Your task to perform on an android device: Search for apple airpods pro on target, select the first entry, and add it to the cart. Image 0: 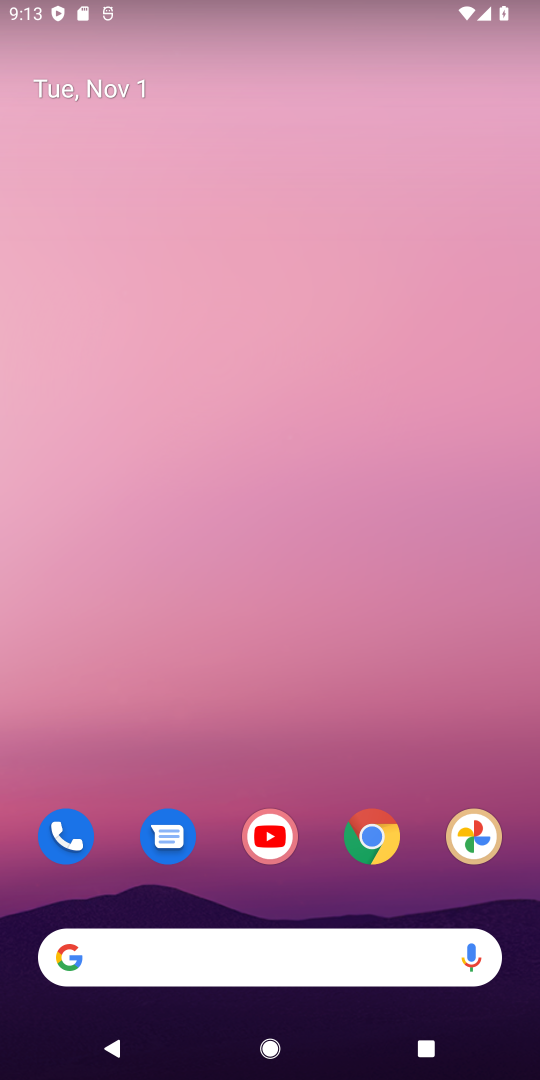
Step 0: click (375, 848)
Your task to perform on an android device: Search for apple airpods pro on target, select the first entry, and add it to the cart. Image 1: 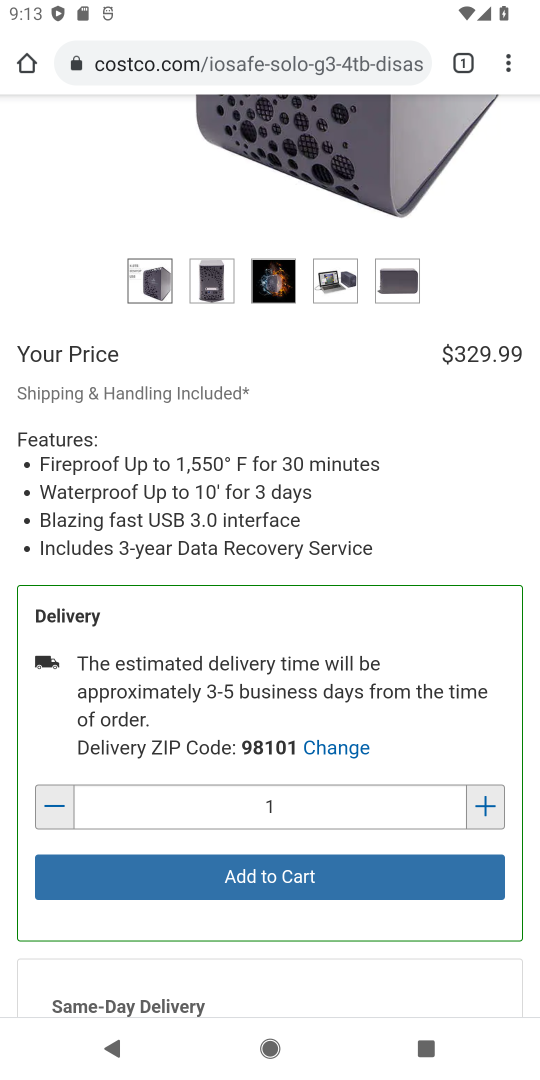
Step 1: click (185, 86)
Your task to perform on an android device: Search for apple airpods pro on target, select the first entry, and add it to the cart. Image 2: 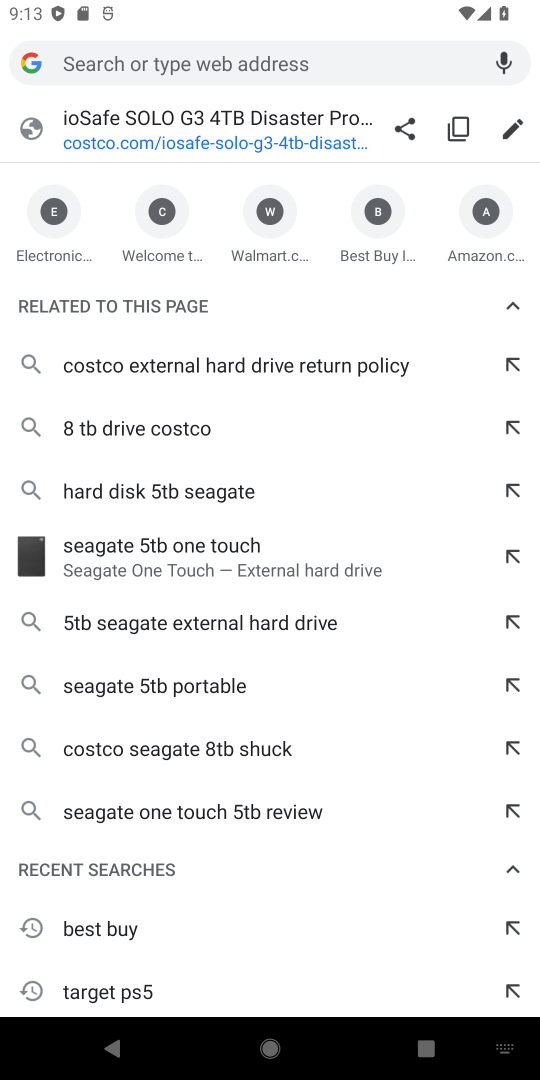
Step 2: type "target"
Your task to perform on an android device: Search for apple airpods pro on target, select the first entry, and add it to the cart. Image 3: 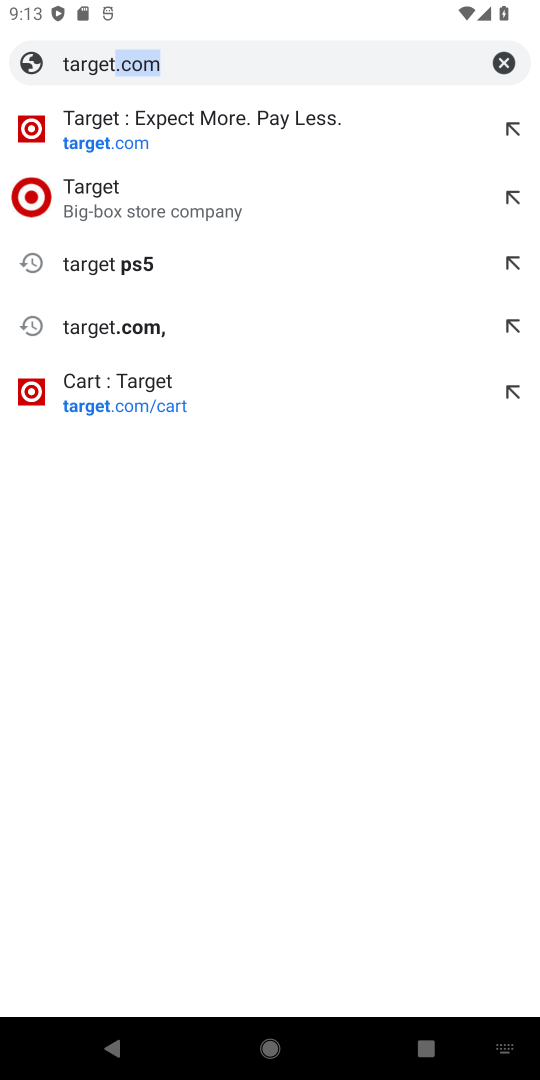
Step 3: click (223, 132)
Your task to perform on an android device: Search for apple airpods pro on target, select the first entry, and add it to the cart. Image 4: 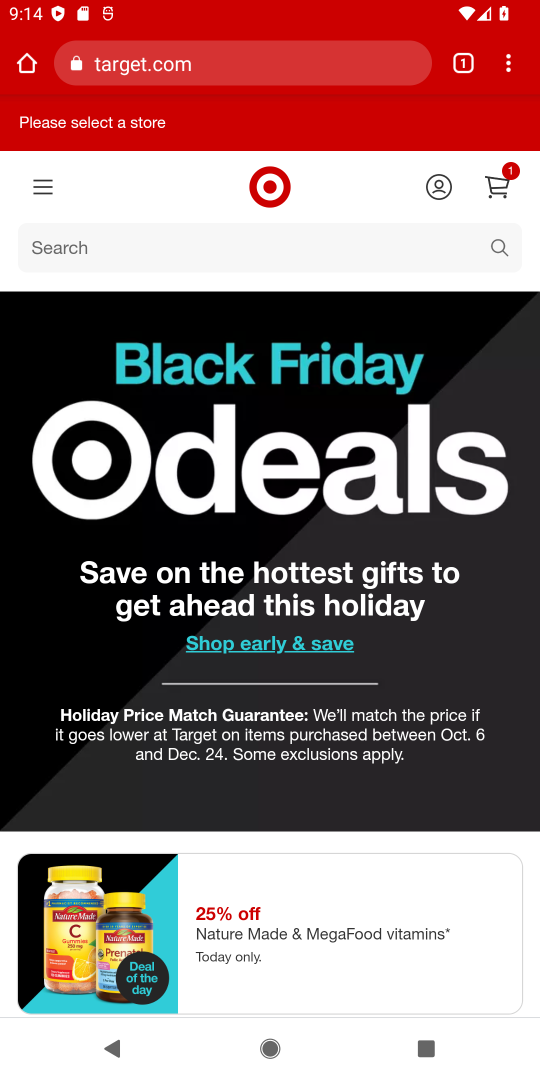
Step 4: click (204, 257)
Your task to perform on an android device: Search for apple airpods pro on target, select the first entry, and add it to the cart. Image 5: 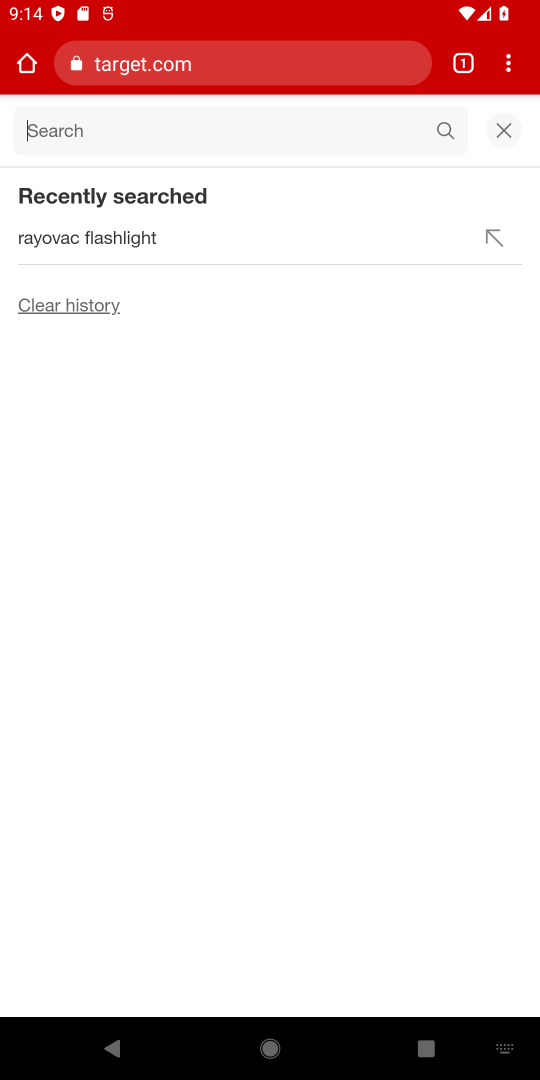
Step 5: type "apple airpods pro"
Your task to perform on an android device: Search for apple airpods pro on target, select the first entry, and add it to the cart. Image 6: 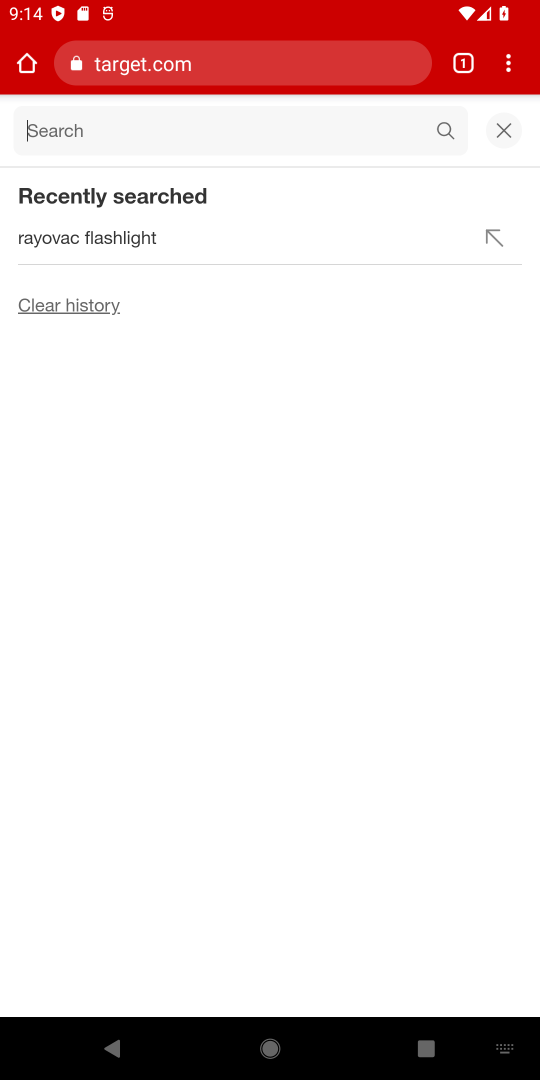
Step 6: type ""
Your task to perform on an android device: Search for apple airpods pro on target, select the first entry, and add it to the cart. Image 7: 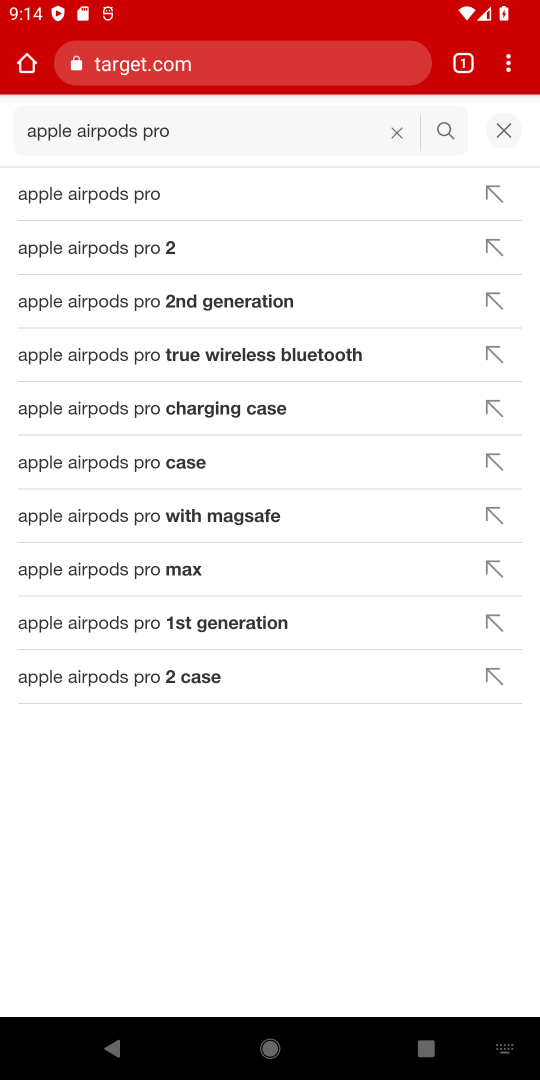
Step 7: click (98, 196)
Your task to perform on an android device: Search for apple airpods pro on target, select the first entry, and add it to the cart. Image 8: 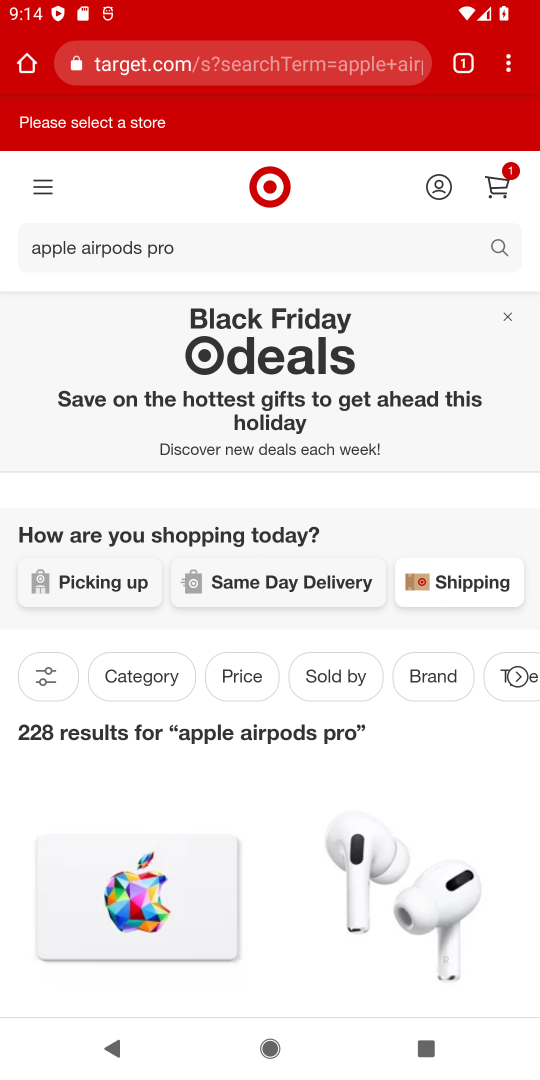
Step 8: drag from (251, 834) to (306, 454)
Your task to perform on an android device: Search for apple airpods pro on target, select the first entry, and add it to the cart. Image 9: 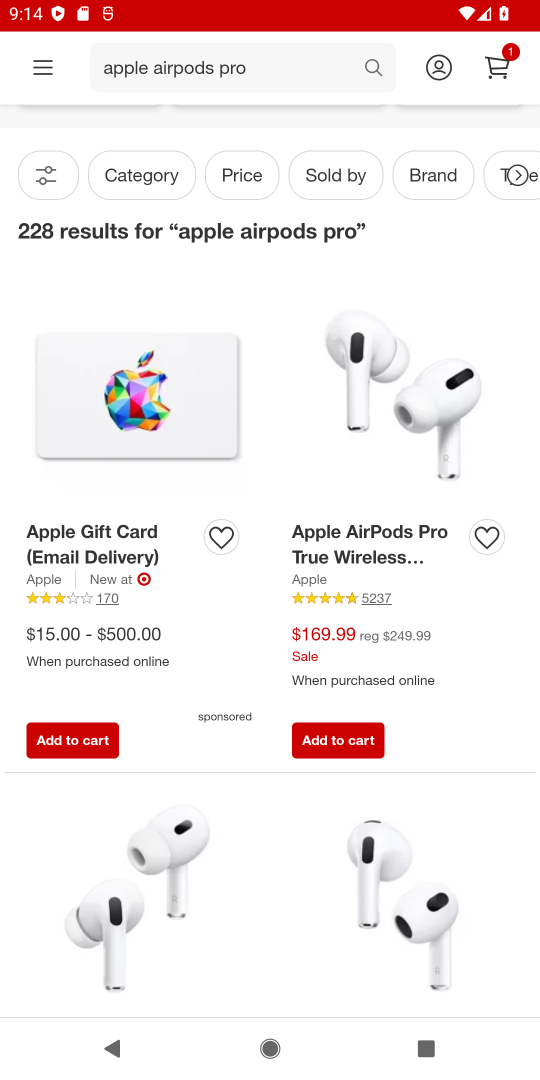
Step 9: click (390, 493)
Your task to perform on an android device: Search for apple airpods pro on target, select the first entry, and add it to the cart. Image 10: 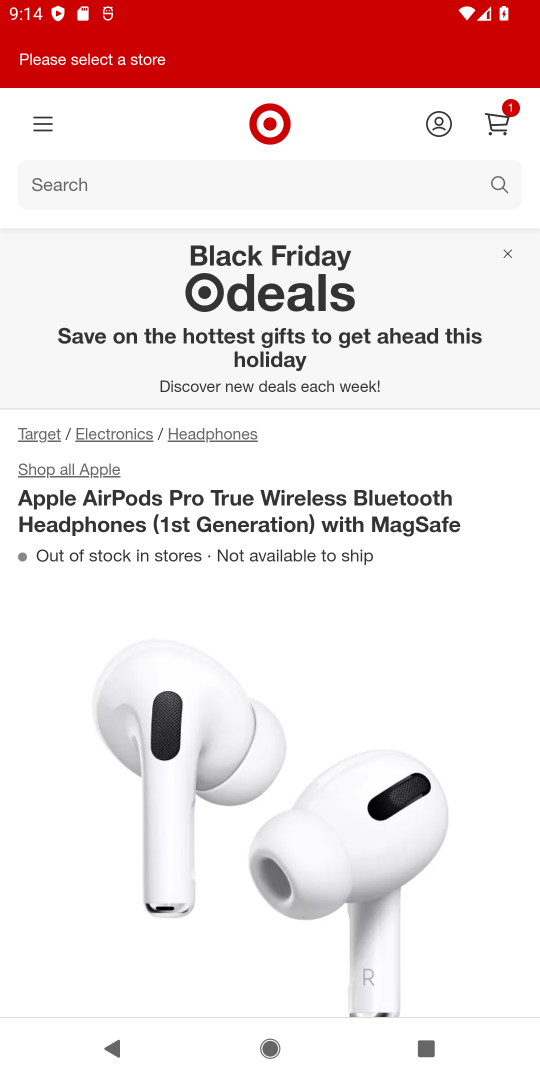
Step 10: drag from (344, 819) to (367, 405)
Your task to perform on an android device: Search for apple airpods pro on target, select the first entry, and add it to the cart. Image 11: 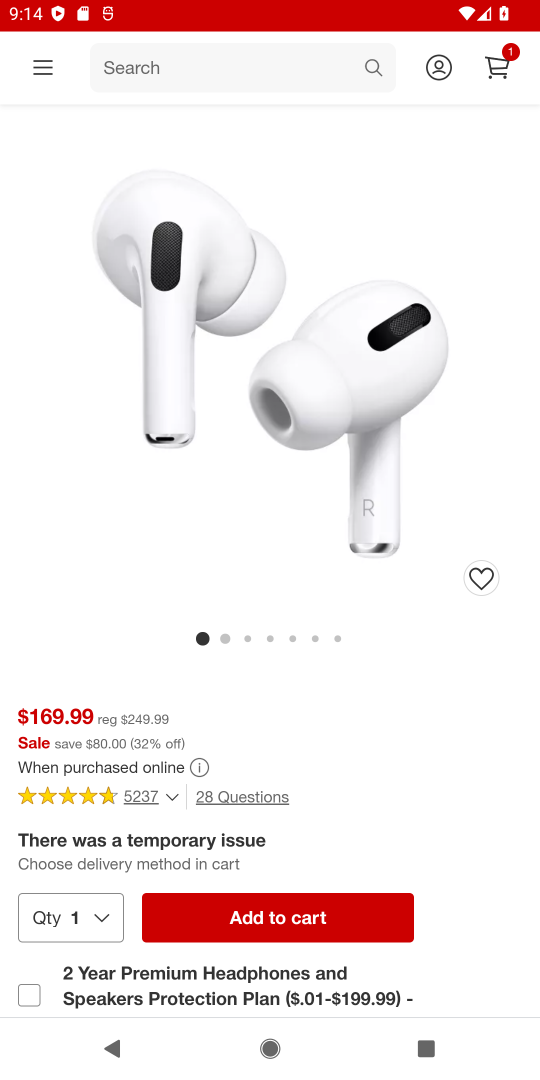
Step 11: click (302, 887)
Your task to perform on an android device: Search for apple airpods pro on target, select the first entry, and add it to the cart. Image 12: 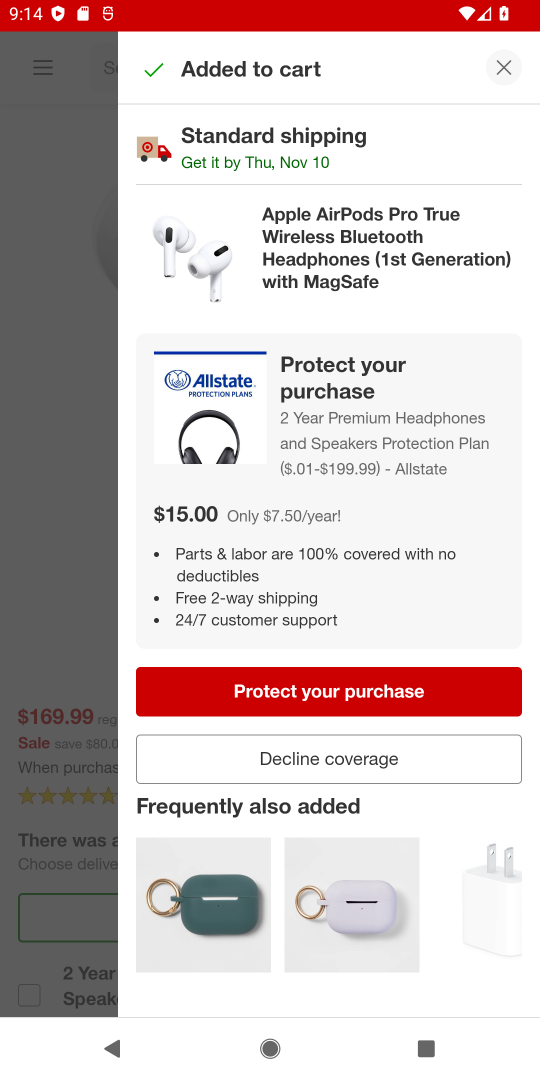
Step 12: click (297, 757)
Your task to perform on an android device: Search for apple airpods pro on target, select the first entry, and add it to the cart. Image 13: 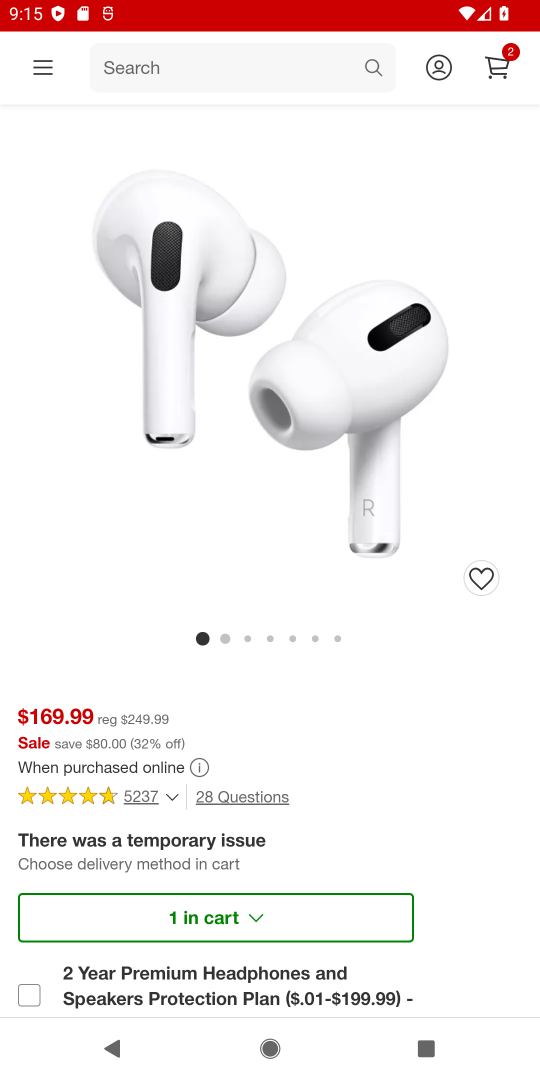
Step 13: drag from (306, 850) to (321, 388)
Your task to perform on an android device: Search for apple airpods pro on target, select the first entry, and add it to the cart. Image 14: 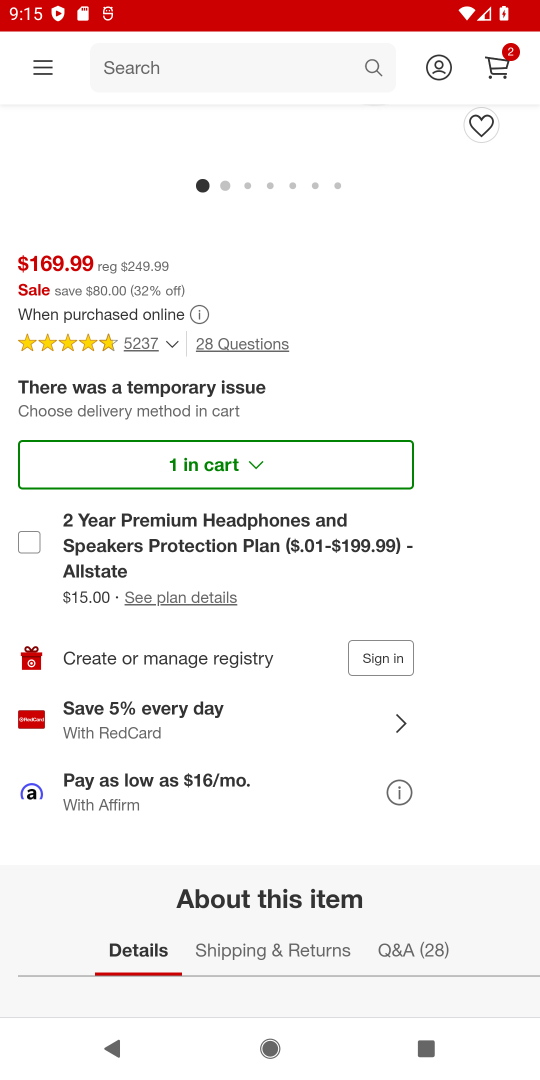
Step 14: drag from (336, 465) to (357, 620)
Your task to perform on an android device: Search for apple airpods pro on target, select the first entry, and add it to the cart. Image 15: 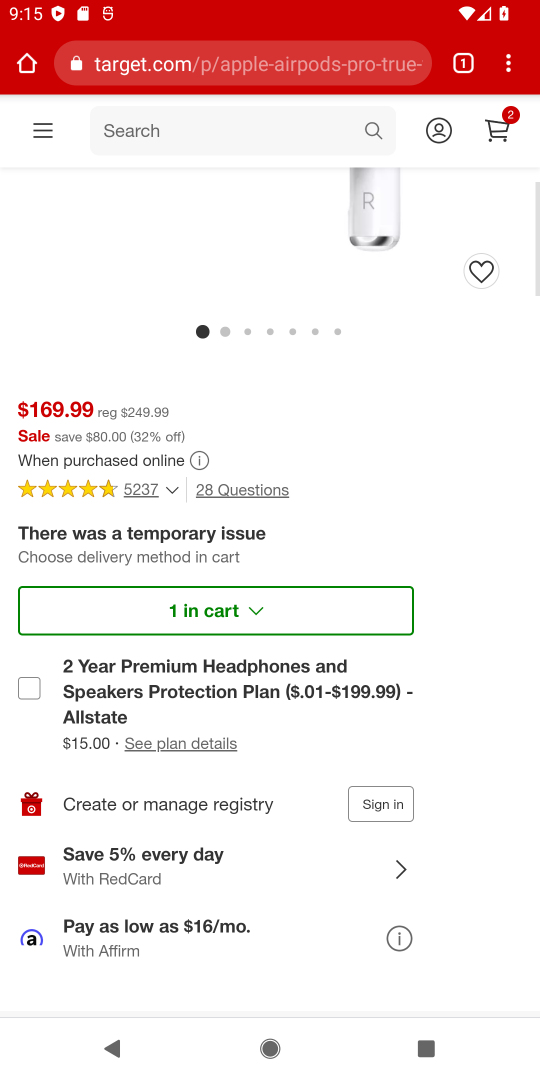
Step 15: click (501, 54)
Your task to perform on an android device: Search for apple airpods pro on target, select the first entry, and add it to the cart. Image 16: 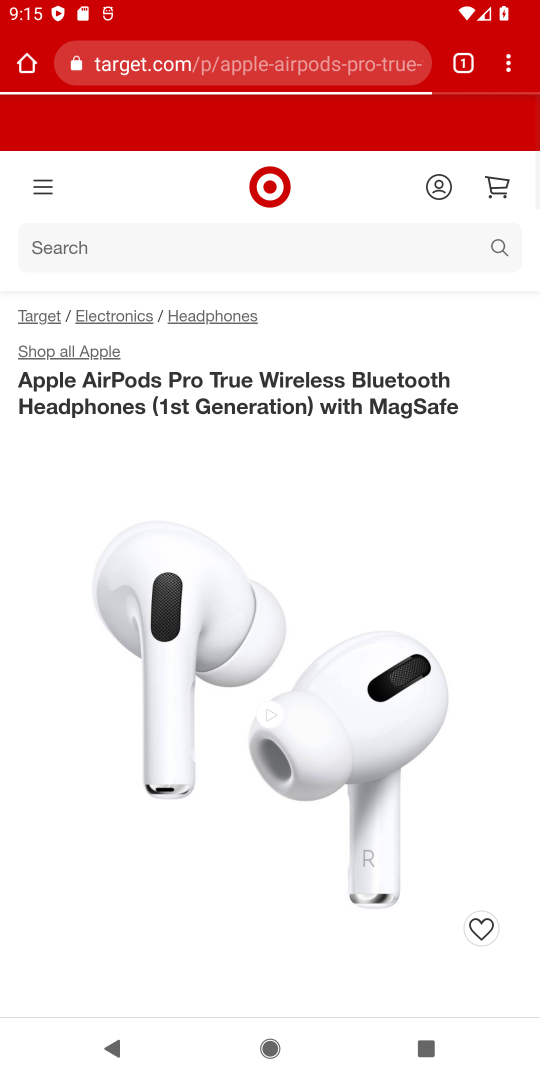
Step 16: click (496, 143)
Your task to perform on an android device: Search for apple airpods pro on target, select the first entry, and add it to the cart. Image 17: 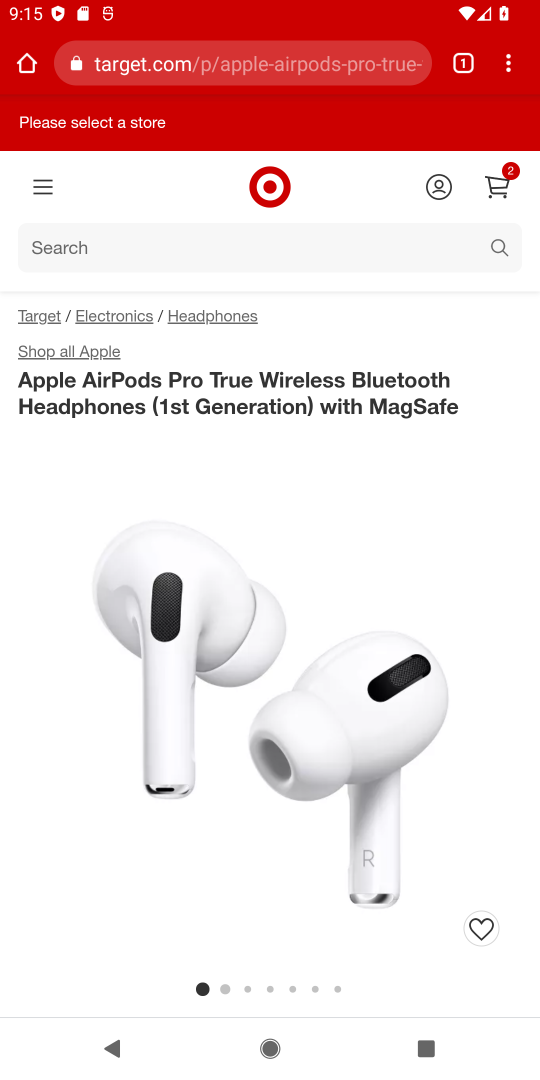
Step 17: click (506, 196)
Your task to perform on an android device: Search for apple airpods pro on target, select the first entry, and add it to the cart. Image 18: 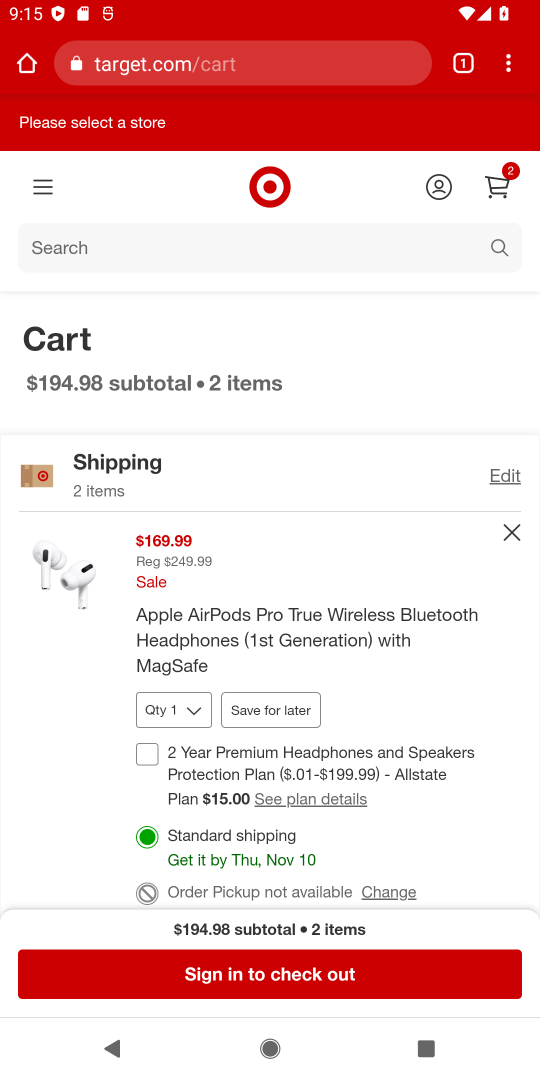
Step 18: click (286, 992)
Your task to perform on an android device: Search for apple airpods pro on target, select the first entry, and add it to the cart. Image 19: 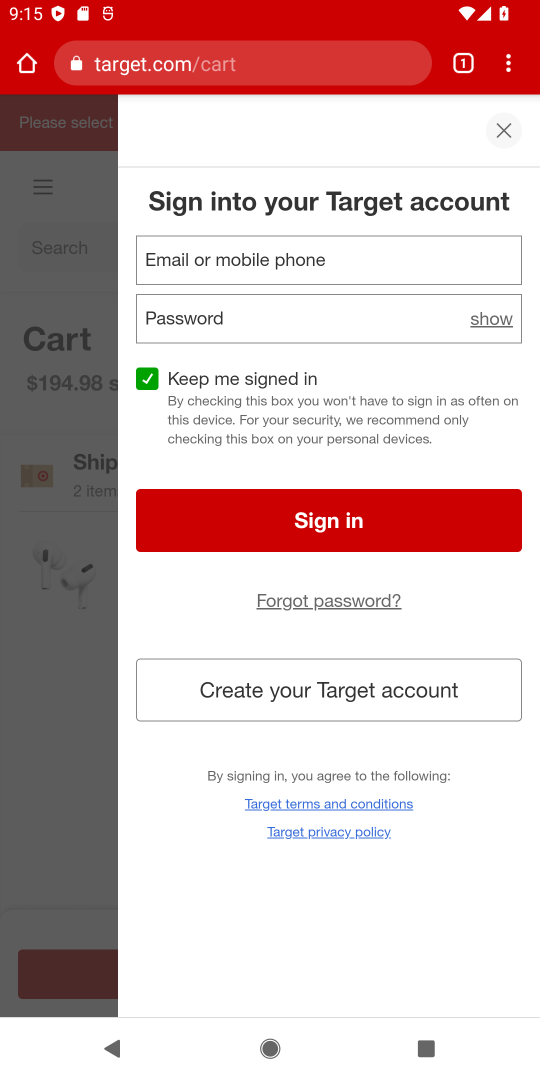
Step 19: task complete